Your task to perform on an android device: Check the weather Image 0: 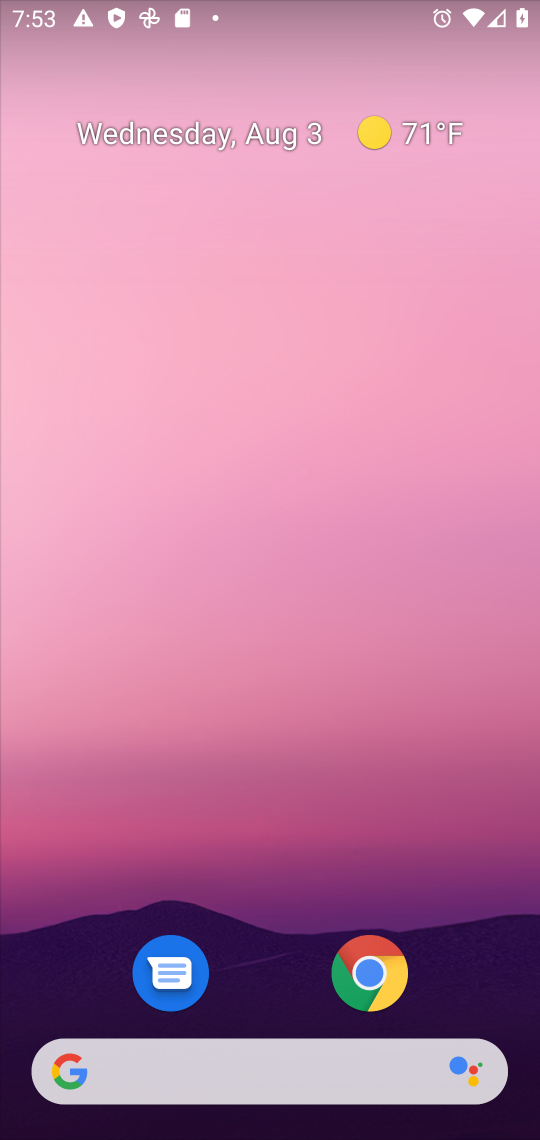
Step 0: click (142, 1081)
Your task to perform on an android device: Check the weather Image 1: 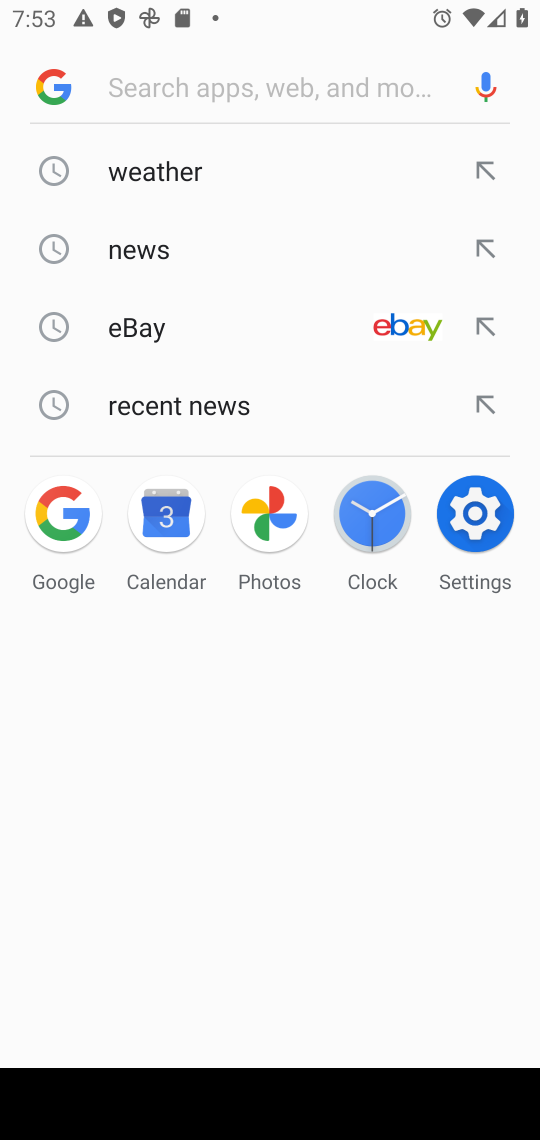
Step 1: click (140, 160)
Your task to perform on an android device: Check the weather Image 2: 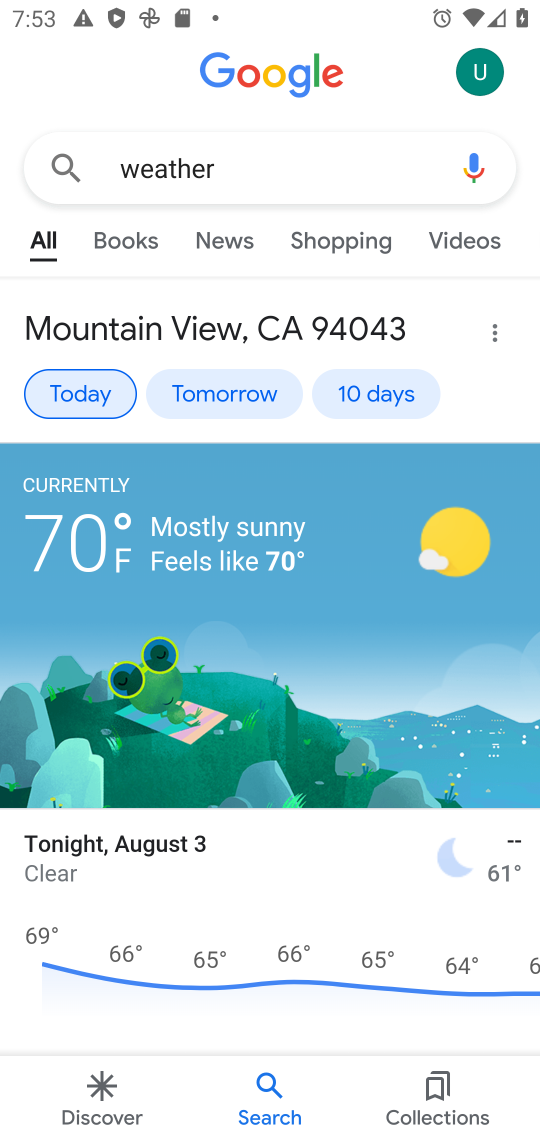
Step 2: task complete